Your task to perform on an android device: empty trash in the gmail app Image 0: 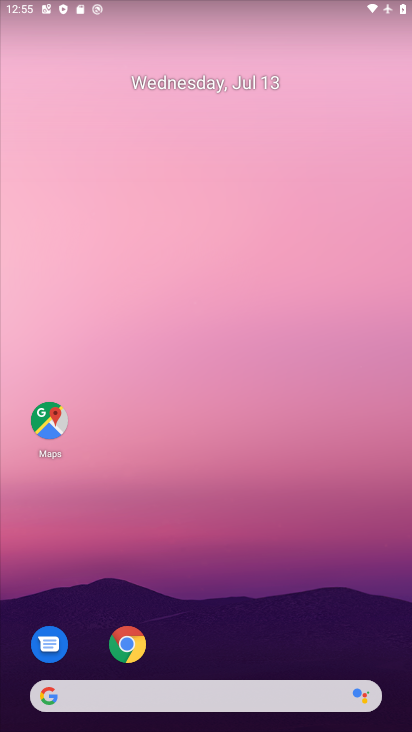
Step 0: drag from (316, 608) to (326, 44)
Your task to perform on an android device: empty trash in the gmail app Image 1: 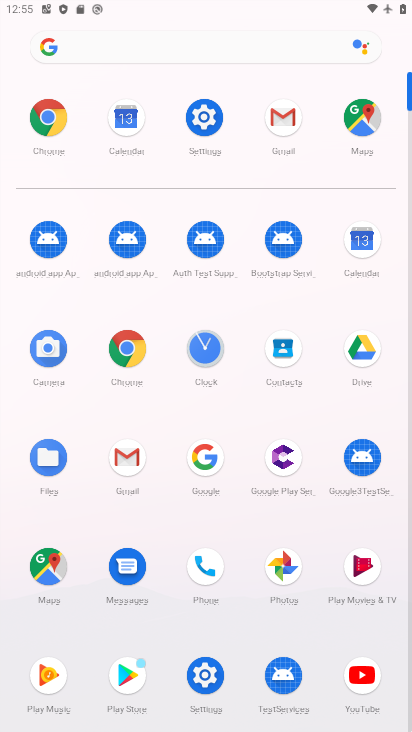
Step 1: click (288, 123)
Your task to perform on an android device: empty trash in the gmail app Image 2: 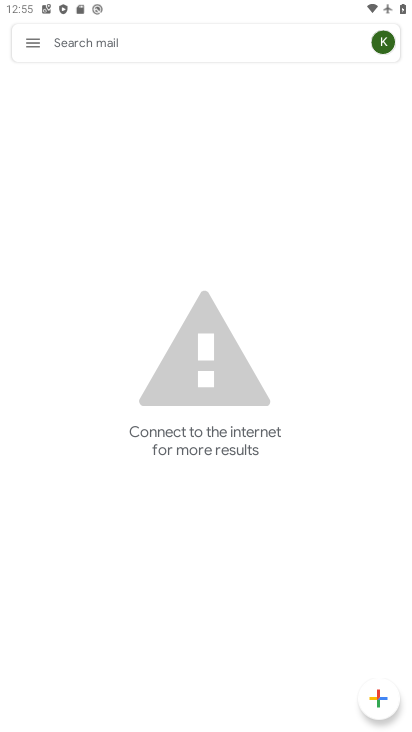
Step 2: click (37, 38)
Your task to perform on an android device: empty trash in the gmail app Image 3: 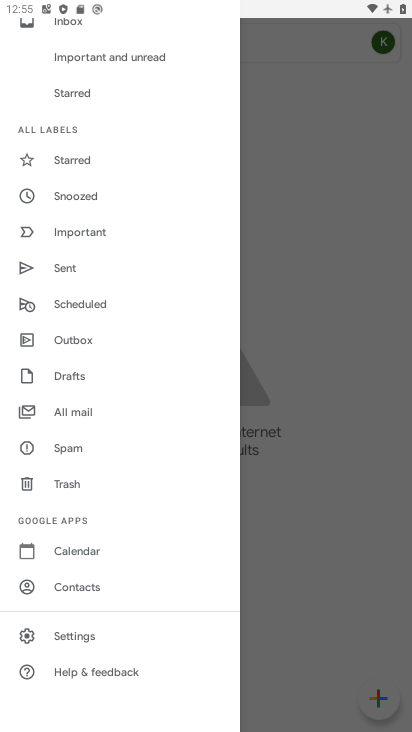
Step 3: click (65, 485)
Your task to perform on an android device: empty trash in the gmail app Image 4: 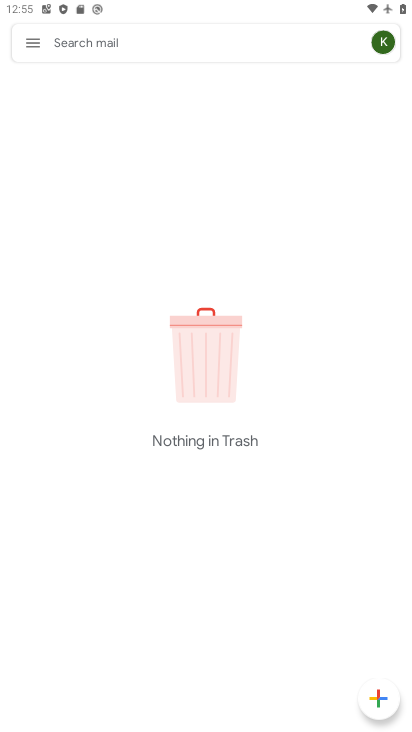
Step 4: task complete